Your task to perform on an android device: Go to Android settings Image 0: 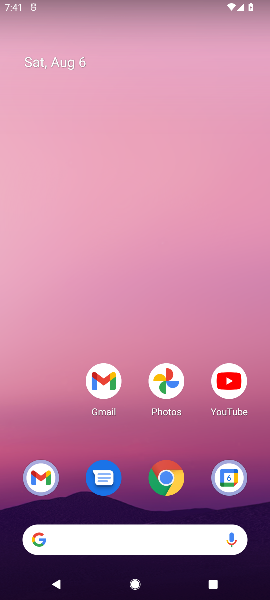
Step 0: press home button
Your task to perform on an android device: Go to Android settings Image 1: 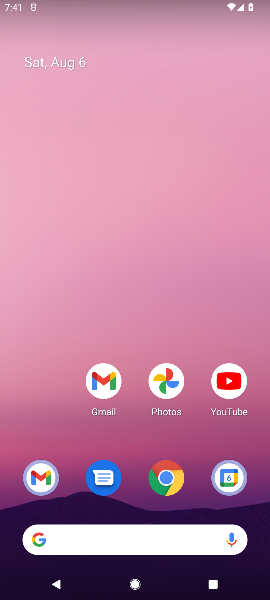
Step 1: drag from (61, 403) to (49, 29)
Your task to perform on an android device: Go to Android settings Image 2: 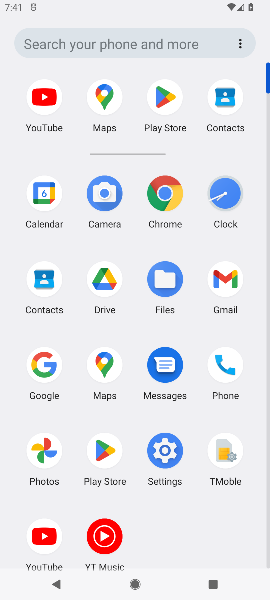
Step 2: click (155, 454)
Your task to perform on an android device: Go to Android settings Image 3: 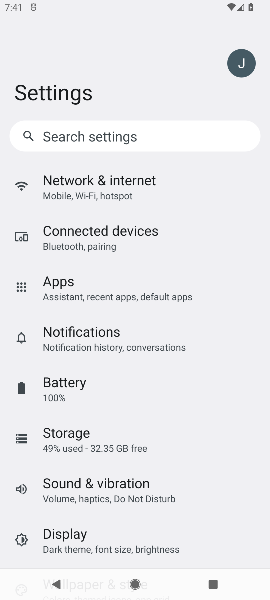
Step 3: task complete